Your task to perform on an android device: turn off airplane mode Image 0: 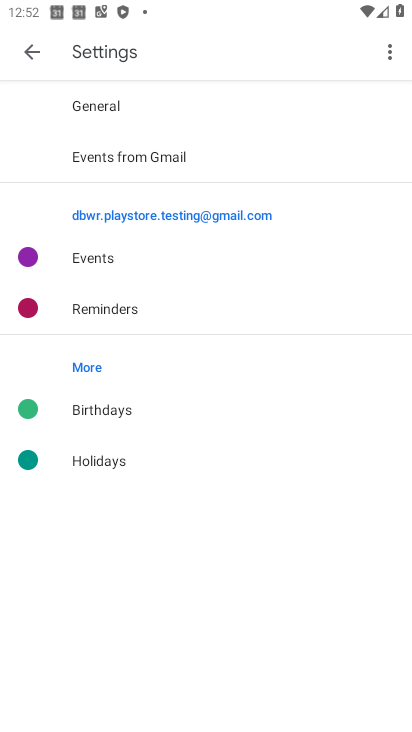
Step 0: click (29, 42)
Your task to perform on an android device: turn off airplane mode Image 1: 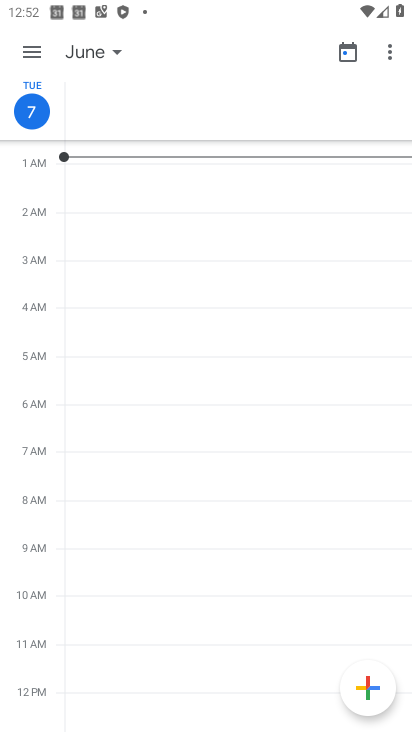
Step 1: click (33, 50)
Your task to perform on an android device: turn off airplane mode Image 2: 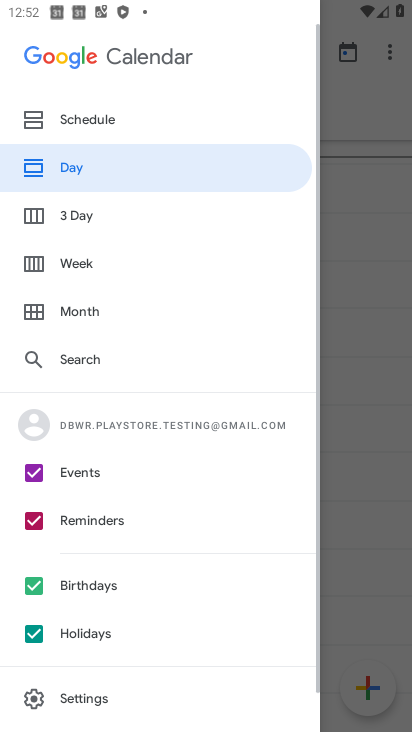
Step 2: drag from (149, 264) to (149, 583)
Your task to perform on an android device: turn off airplane mode Image 3: 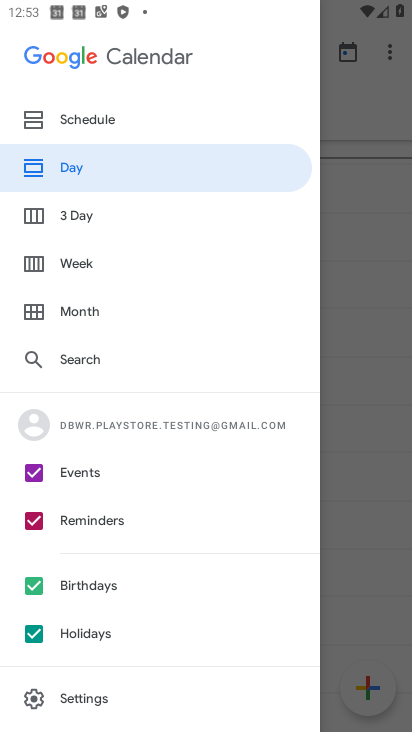
Step 3: press home button
Your task to perform on an android device: turn off airplane mode Image 4: 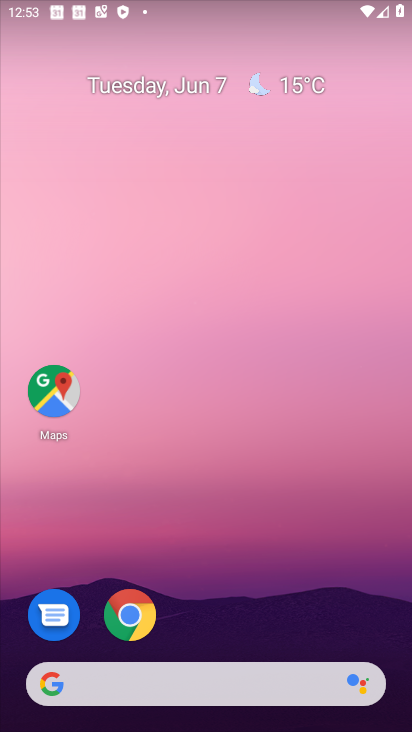
Step 4: drag from (205, 216) to (207, 44)
Your task to perform on an android device: turn off airplane mode Image 5: 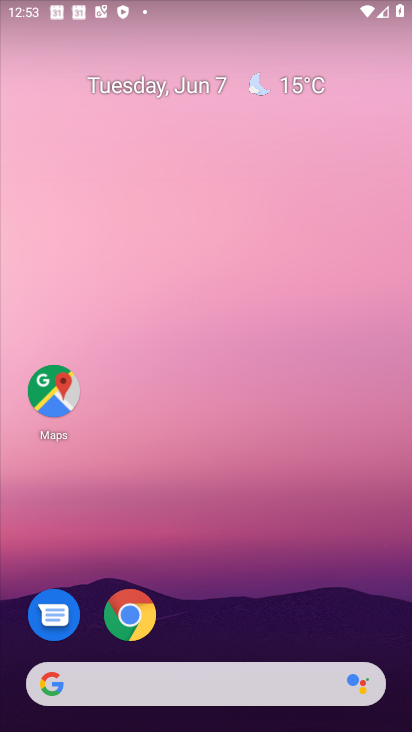
Step 5: drag from (176, 638) to (322, 5)
Your task to perform on an android device: turn off airplane mode Image 6: 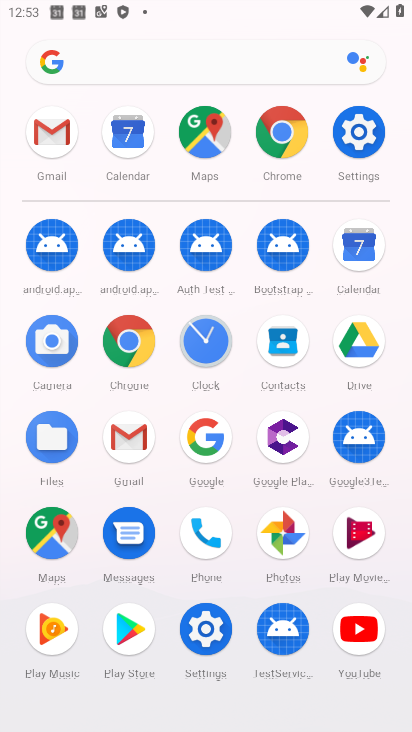
Step 6: click (361, 127)
Your task to perform on an android device: turn off airplane mode Image 7: 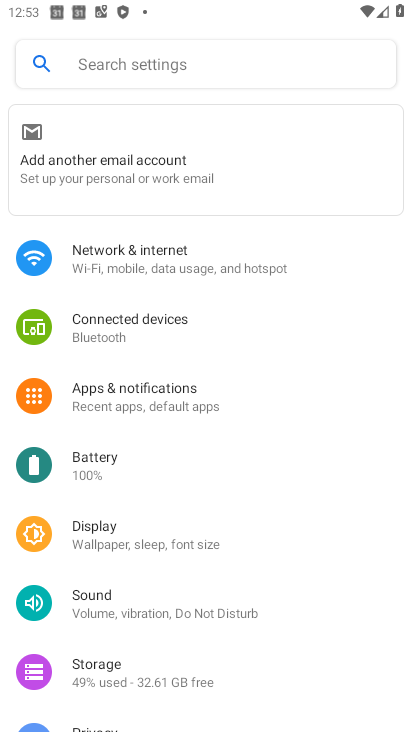
Step 7: click (140, 269)
Your task to perform on an android device: turn off airplane mode Image 8: 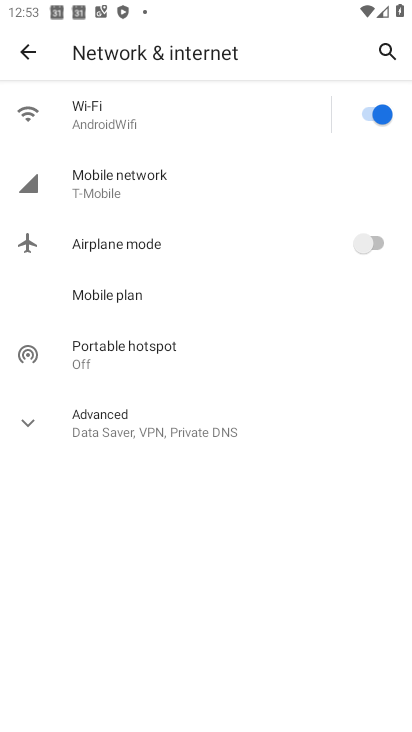
Step 8: task complete